Your task to perform on an android device: turn on bluetooth scan Image 0: 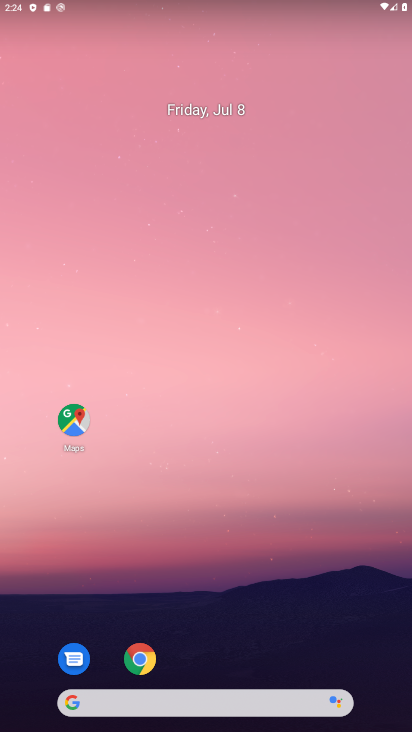
Step 0: drag from (214, 427) to (151, 0)
Your task to perform on an android device: turn on bluetooth scan Image 1: 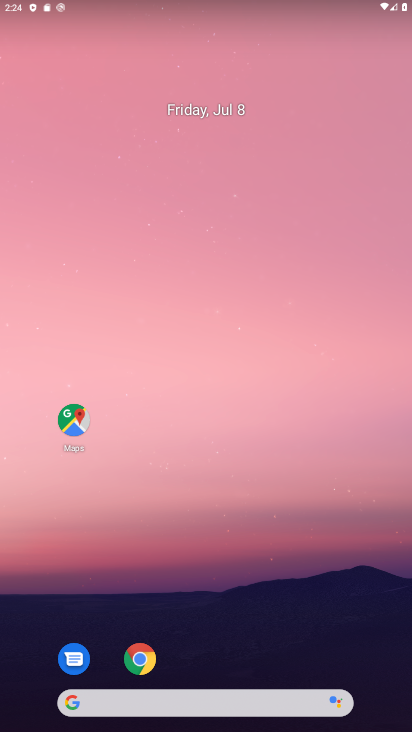
Step 1: drag from (257, 550) to (222, 1)
Your task to perform on an android device: turn on bluetooth scan Image 2: 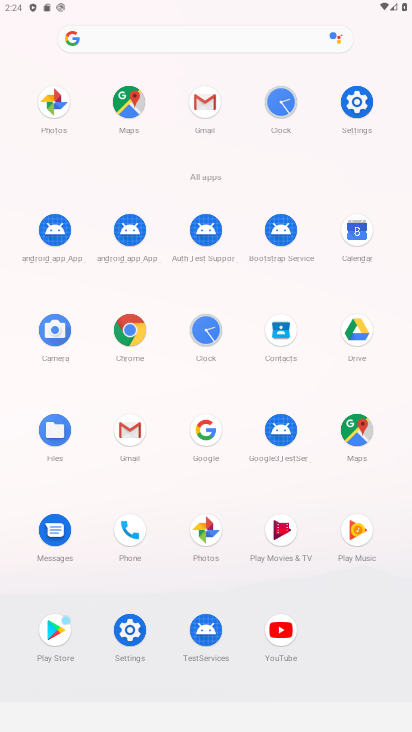
Step 2: drag from (209, 554) to (164, 59)
Your task to perform on an android device: turn on bluetooth scan Image 3: 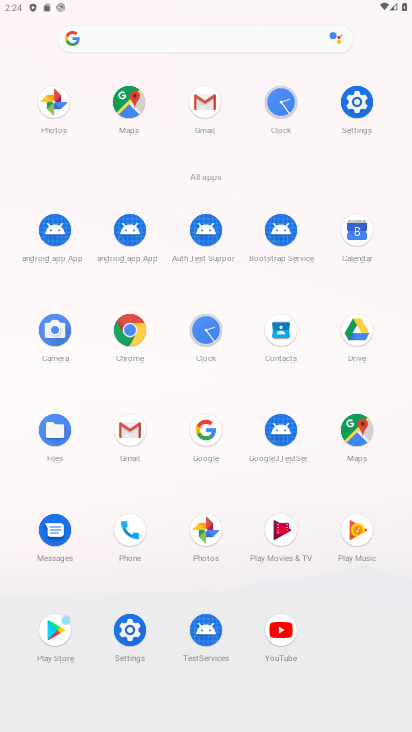
Step 3: click (136, 634)
Your task to perform on an android device: turn on bluetooth scan Image 4: 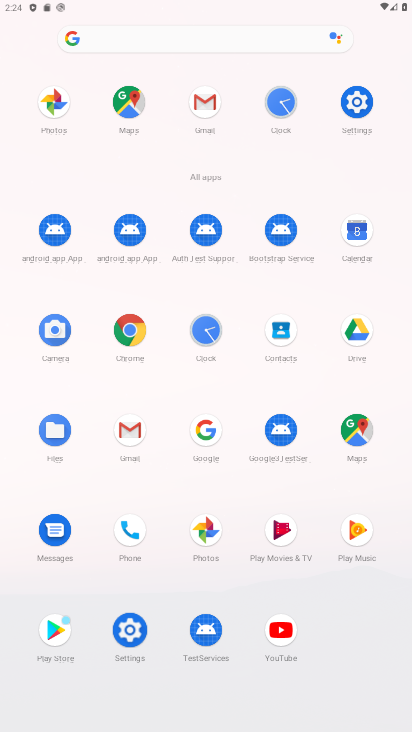
Step 4: click (134, 635)
Your task to perform on an android device: turn on bluetooth scan Image 5: 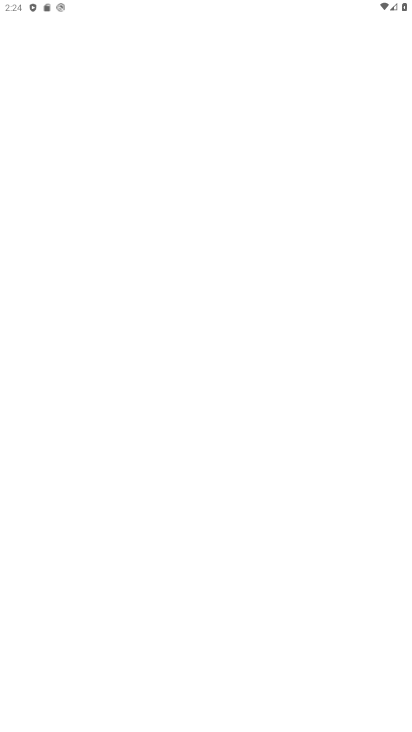
Step 5: click (140, 635)
Your task to perform on an android device: turn on bluetooth scan Image 6: 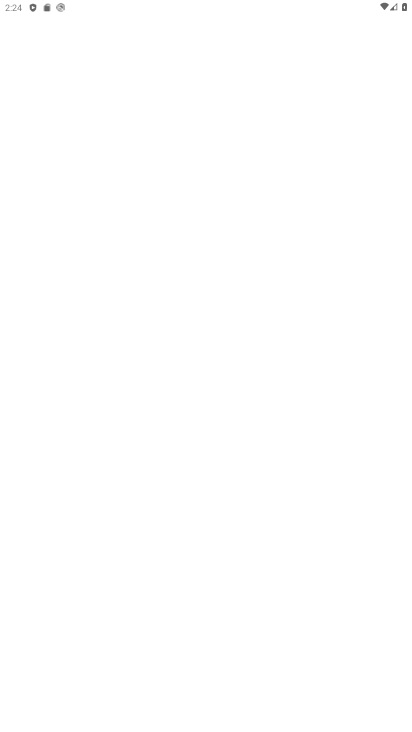
Step 6: click (138, 635)
Your task to perform on an android device: turn on bluetooth scan Image 7: 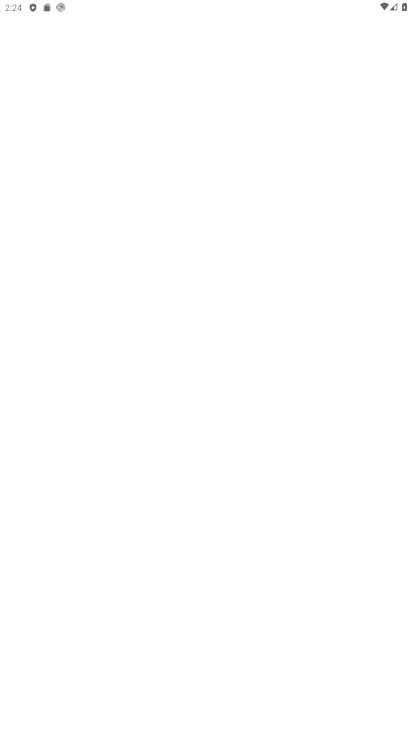
Step 7: click (125, 623)
Your task to perform on an android device: turn on bluetooth scan Image 8: 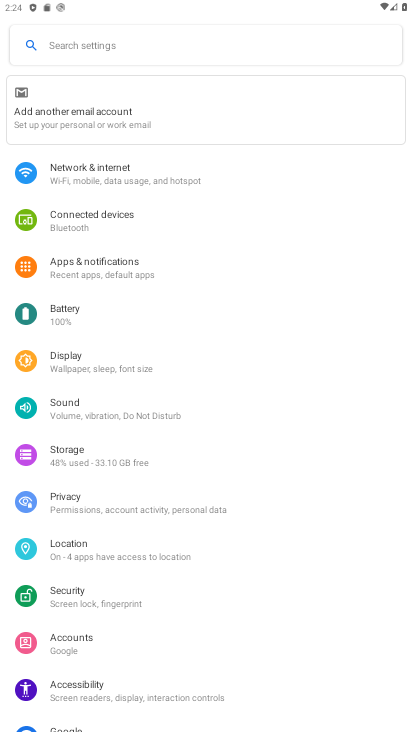
Step 8: click (81, 554)
Your task to perform on an android device: turn on bluetooth scan Image 9: 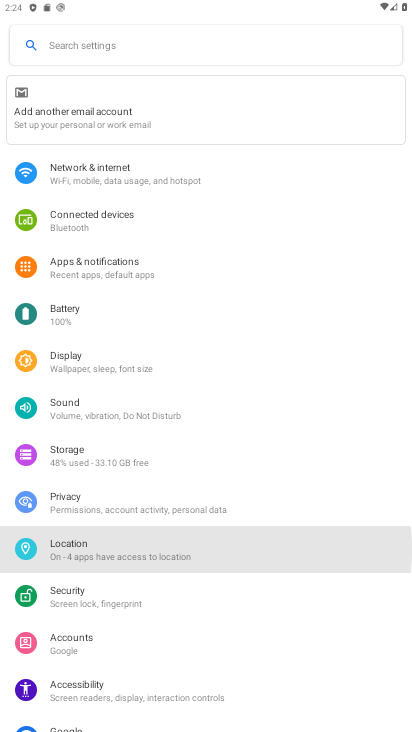
Step 9: click (87, 559)
Your task to perform on an android device: turn on bluetooth scan Image 10: 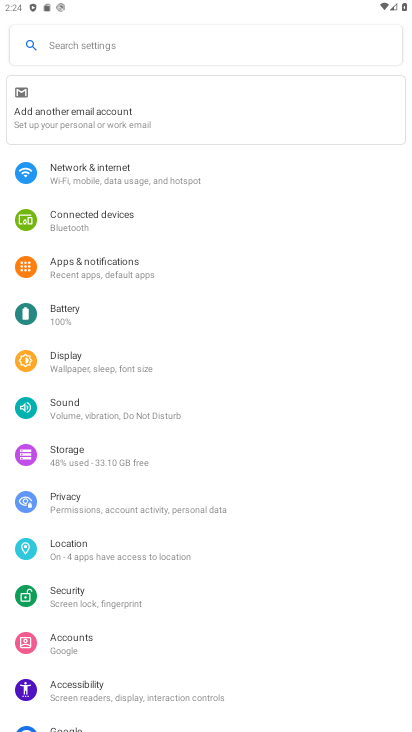
Step 10: drag from (81, 567) to (117, 565)
Your task to perform on an android device: turn on bluetooth scan Image 11: 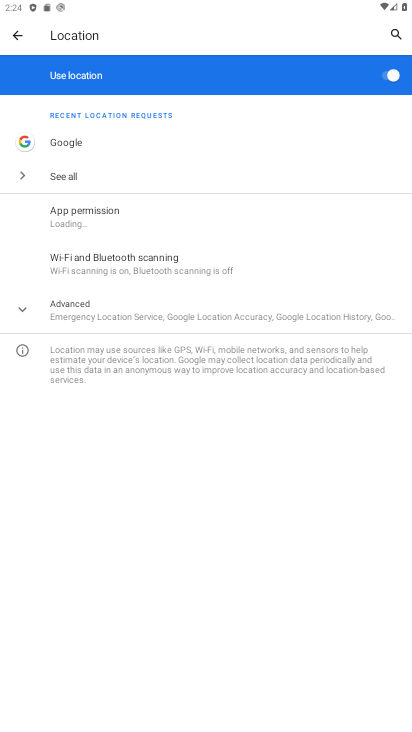
Step 11: click (90, 267)
Your task to perform on an android device: turn on bluetooth scan Image 12: 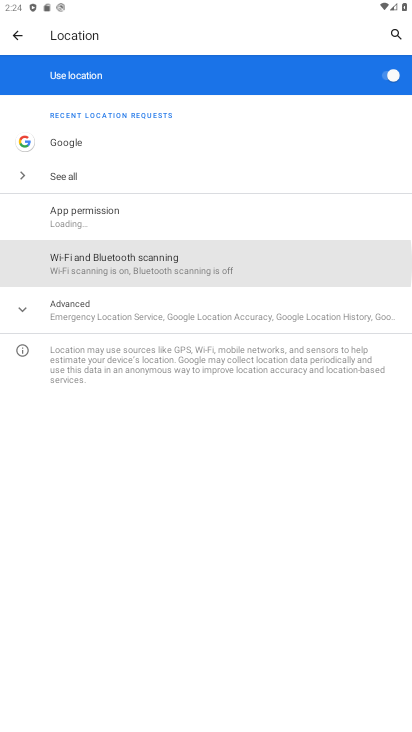
Step 12: click (90, 267)
Your task to perform on an android device: turn on bluetooth scan Image 13: 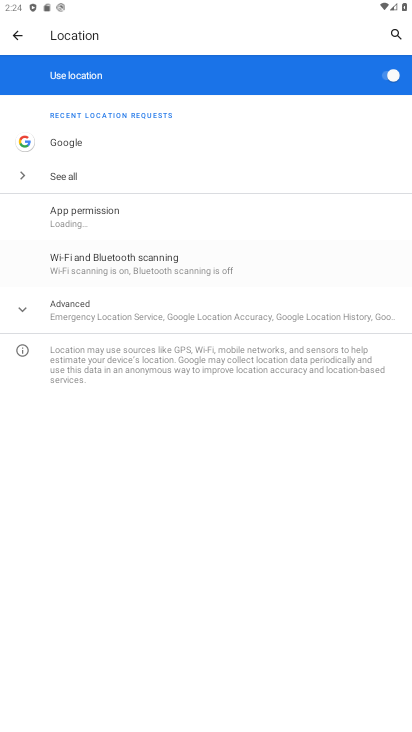
Step 13: click (85, 269)
Your task to perform on an android device: turn on bluetooth scan Image 14: 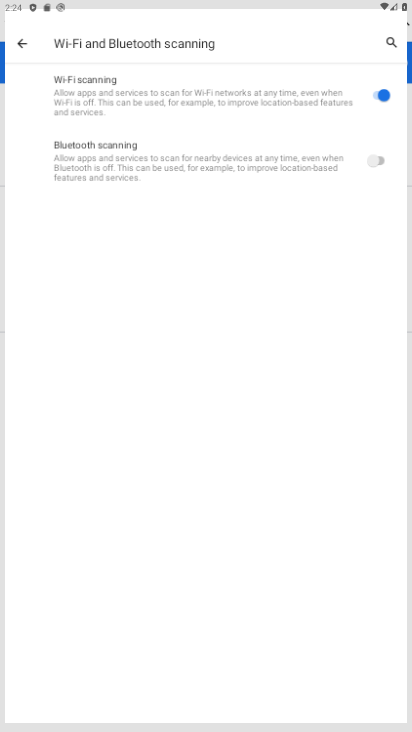
Step 14: click (82, 270)
Your task to perform on an android device: turn on bluetooth scan Image 15: 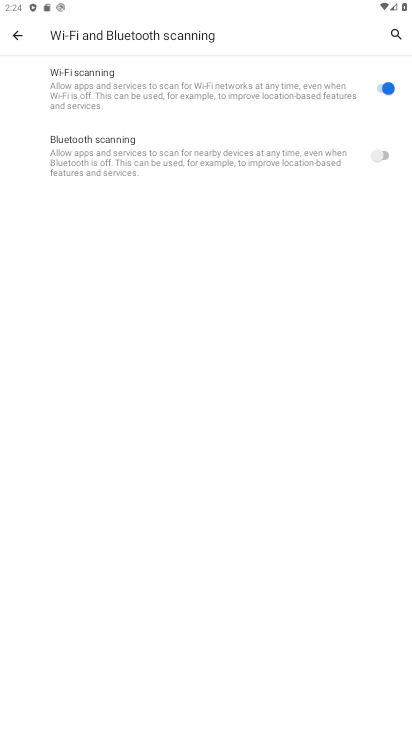
Step 15: task complete